Your task to perform on an android device: Open the Play Movies app and select the watchlist tab. Image 0: 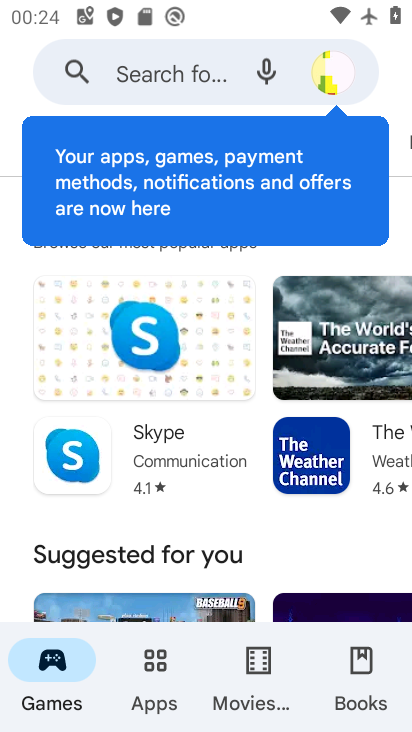
Step 0: press home button
Your task to perform on an android device: Open the Play Movies app and select the watchlist tab. Image 1: 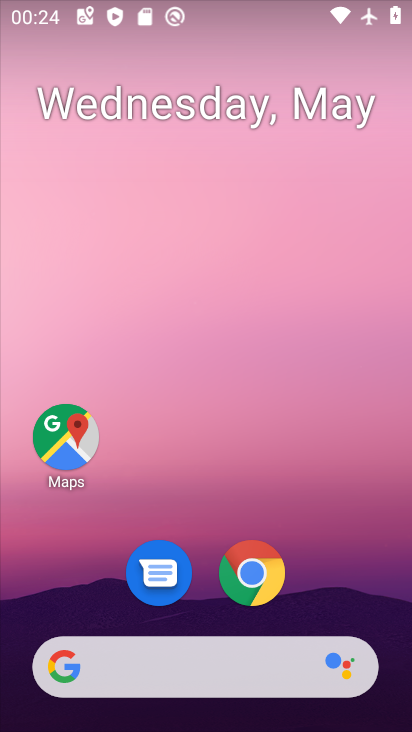
Step 1: drag from (340, 588) to (308, 317)
Your task to perform on an android device: Open the Play Movies app and select the watchlist tab. Image 2: 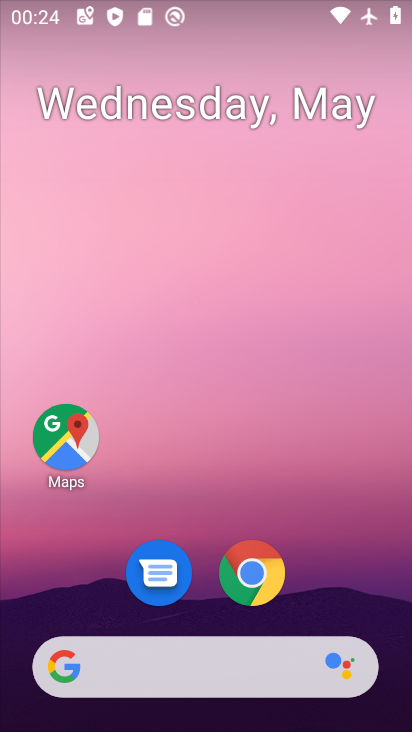
Step 2: drag from (343, 545) to (321, 202)
Your task to perform on an android device: Open the Play Movies app and select the watchlist tab. Image 3: 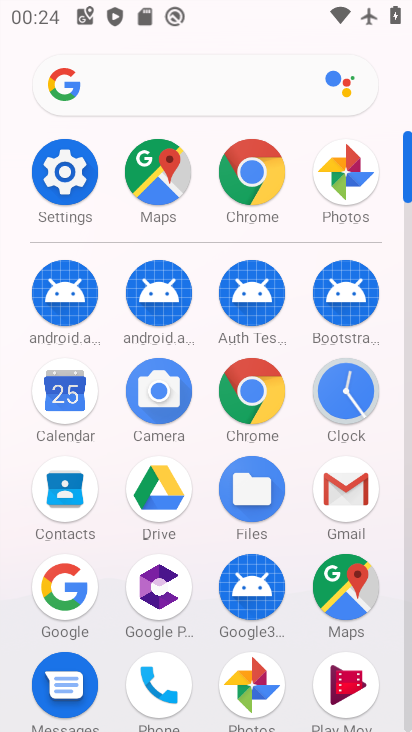
Step 3: drag from (297, 637) to (290, 399)
Your task to perform on an android device: Open the Play Movies app and select the watchlist tab. Image 4: 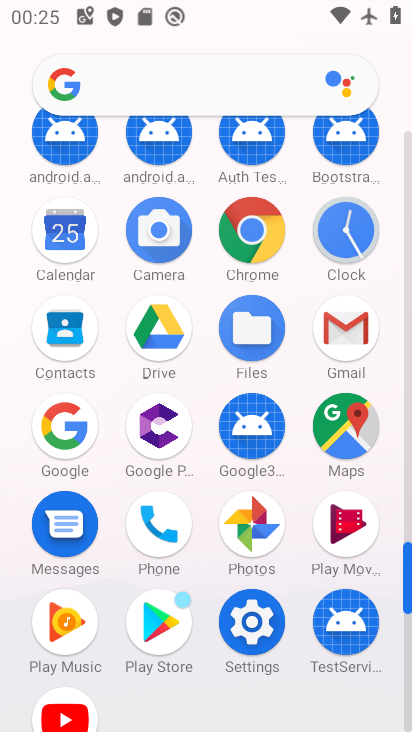
Step 4: click (345, 508)
Your task to perform on an android device: Open the Play Movies app and select the watchlist tab. Image 5: 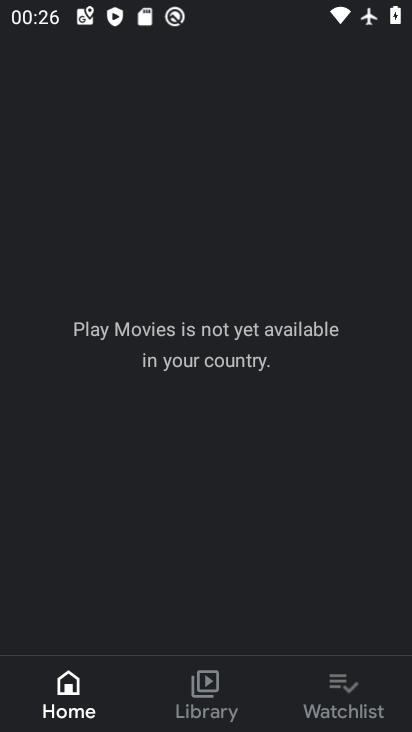
Step 5: click (334, 685)
Your task to perform on an android device: Open the Play Movies app and select the watchlist tab. Image 6: 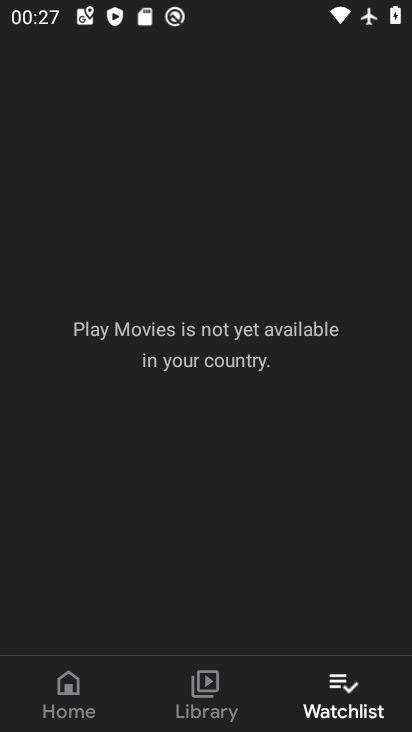
Step 6: task complete